Your task to perform on an android device: Set the phone to "Do not disturb". Image 0: 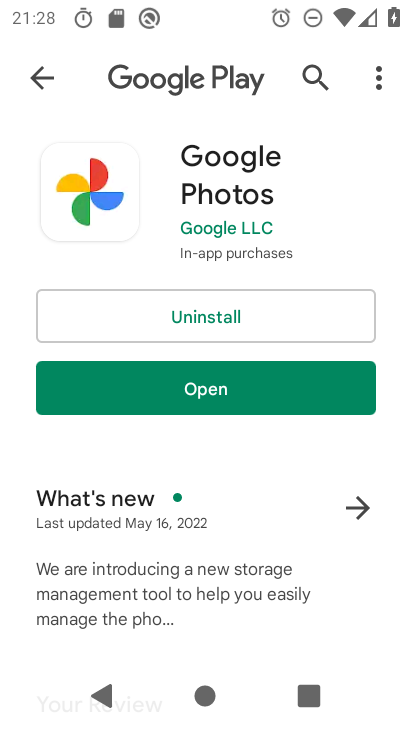
Step 0: press home button
Your task to perform on an android device: Set the phone to "Do not disturb". Image 1: 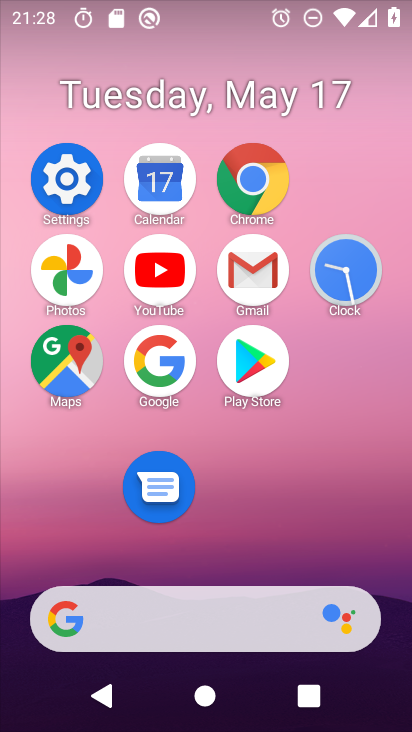
Step 1: click (58, 192)
Your task to perform on an android device: Set the phone to "Do not disturb". Image 2: 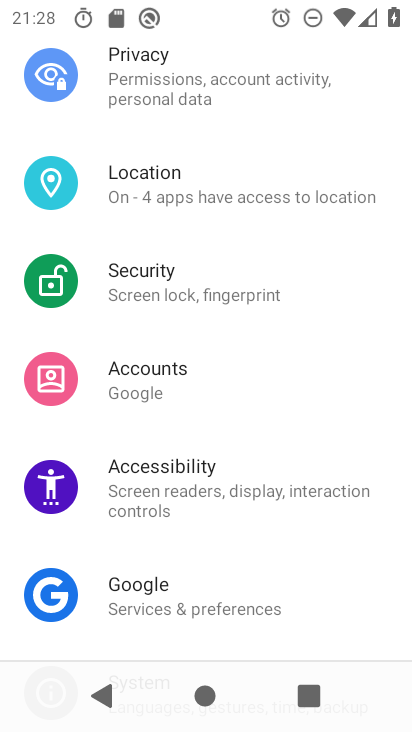
Step 2: drag from (305, 229) to (286, 575)
Your task to perform on an android device: Set the phone to "Do not disturb". Image 3: 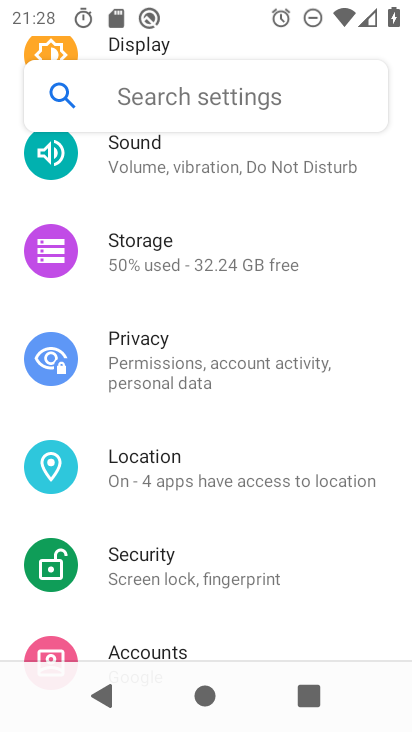
Step 3: click (287, 167)
Your task to perform on an android device: Set the phone to "Do not disturb". Image 4: 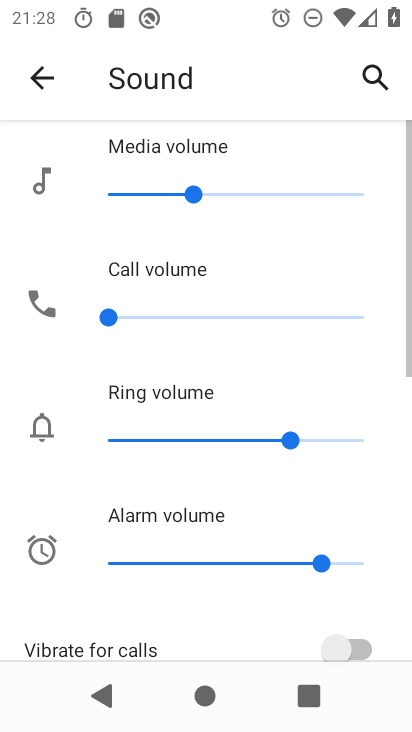
Step 4: task complete